Your task to perform on an android device: install app "Walmart Shopping & Grocery" Image 0: 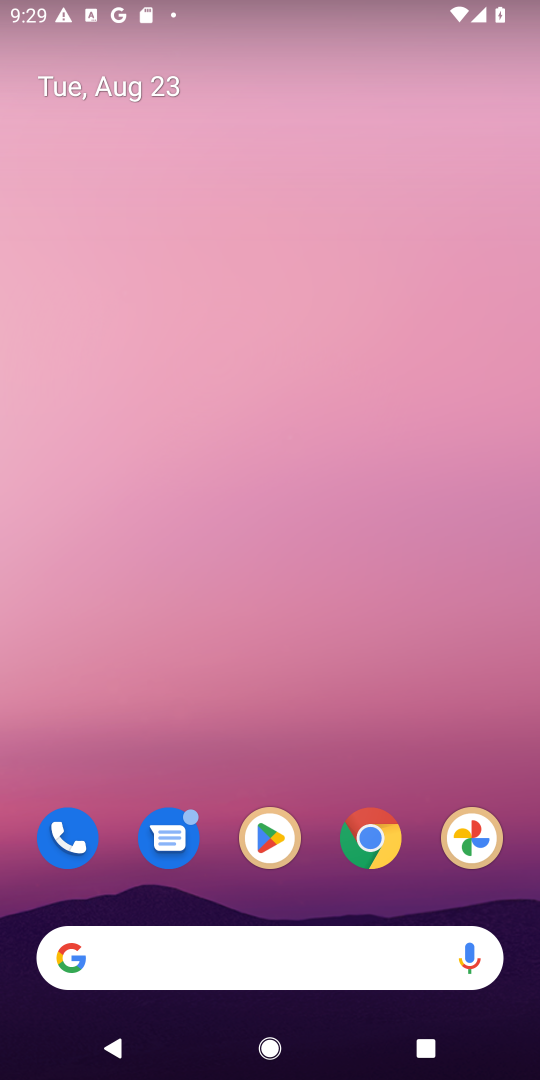
Step 0: click (285, 839)
Your task to perform on an android device: install app "Walmart Shopping & Grocery" Image 1: 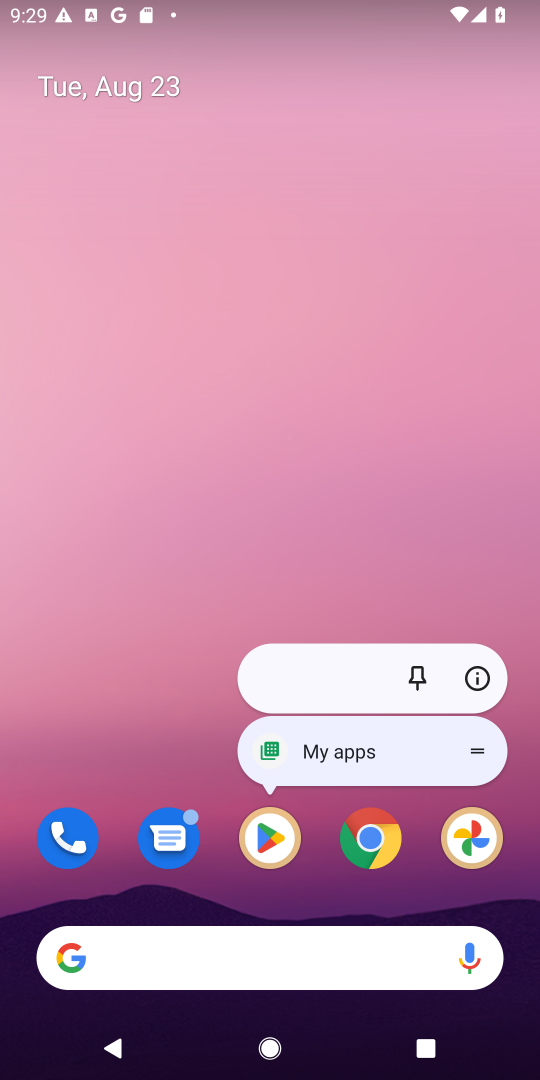
Step 1: click (260, 822)
Your task to perform on an android device: install app "Walmart Shopping & Grocery" Image 2: 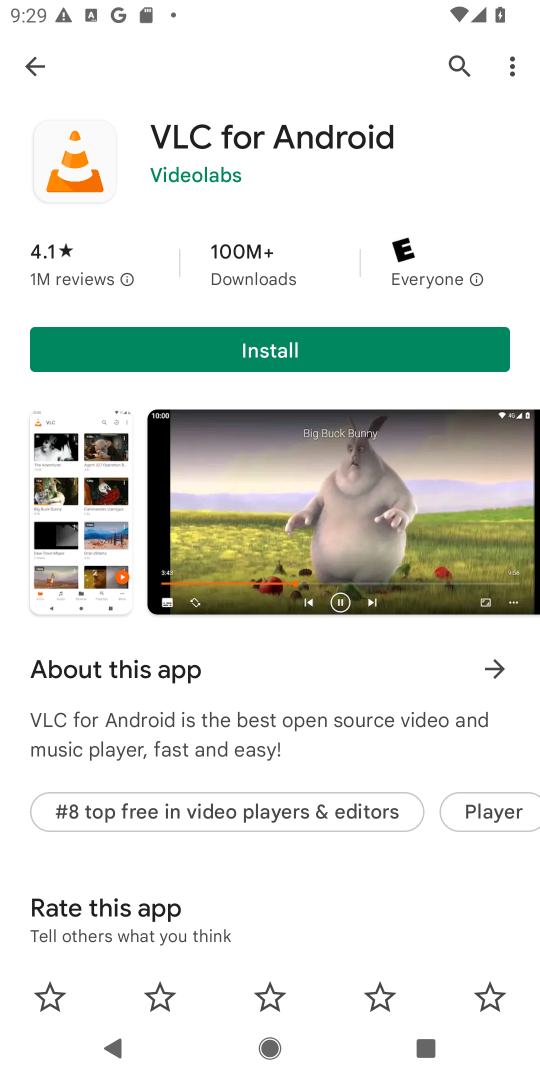
Step 2: click (445, 61)
Your task to perform on an android device: install app "Walmart Shopping & Grocery" Image 3: 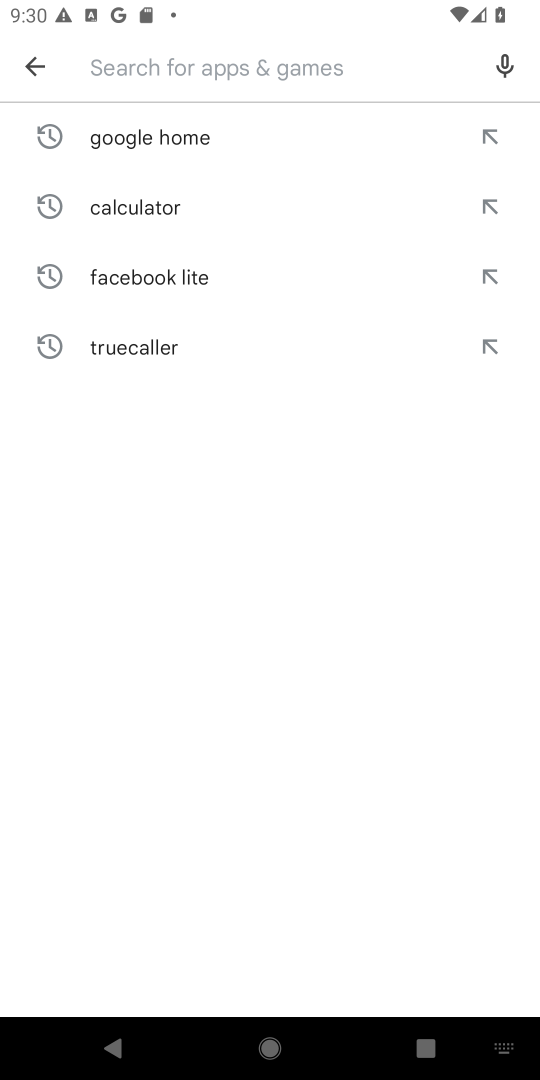
Step 3: type "Walmart Shopping & Grocery"
Your task to perform on an android device: install app "Walmart Shopping & Grocery" Image 4: 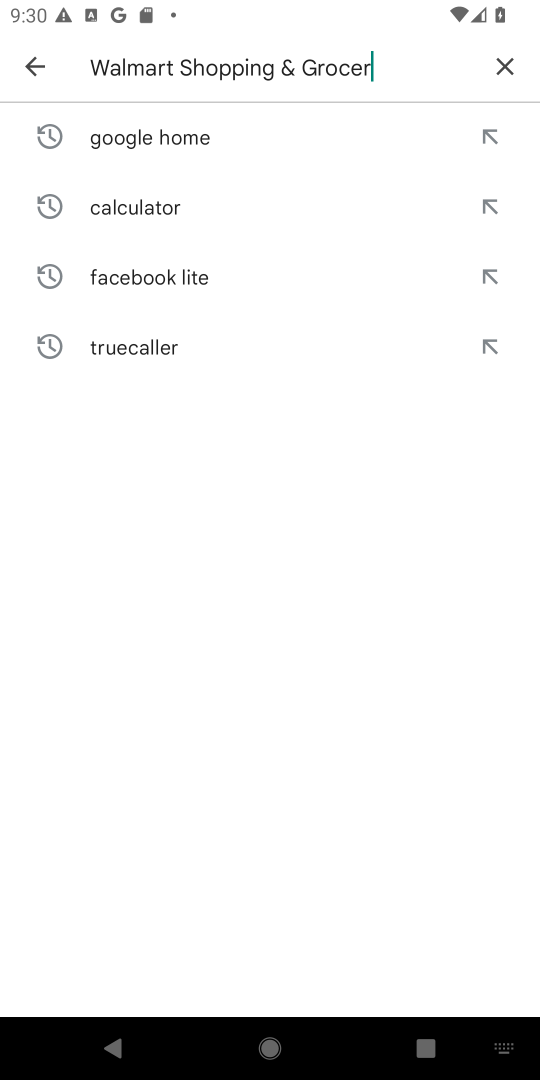
Step 4: type ""
Your task to perform on an android device: install app "Walmart Shopping & Grocery" Image 5: 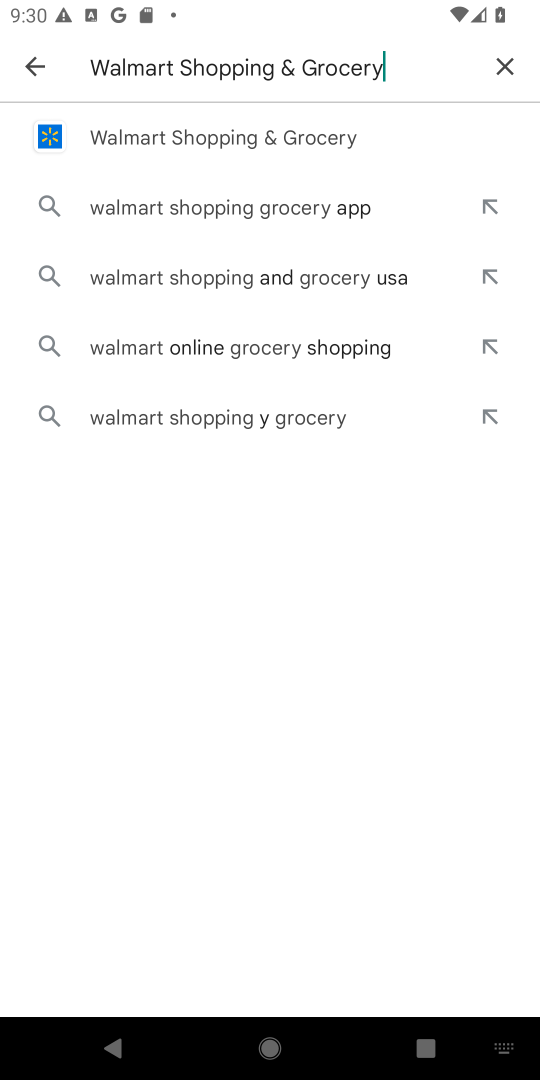
Step 5: click (246, 130)
Your task to perform on an android device: install app "Walmart Shopping & Grocery" Image 6: 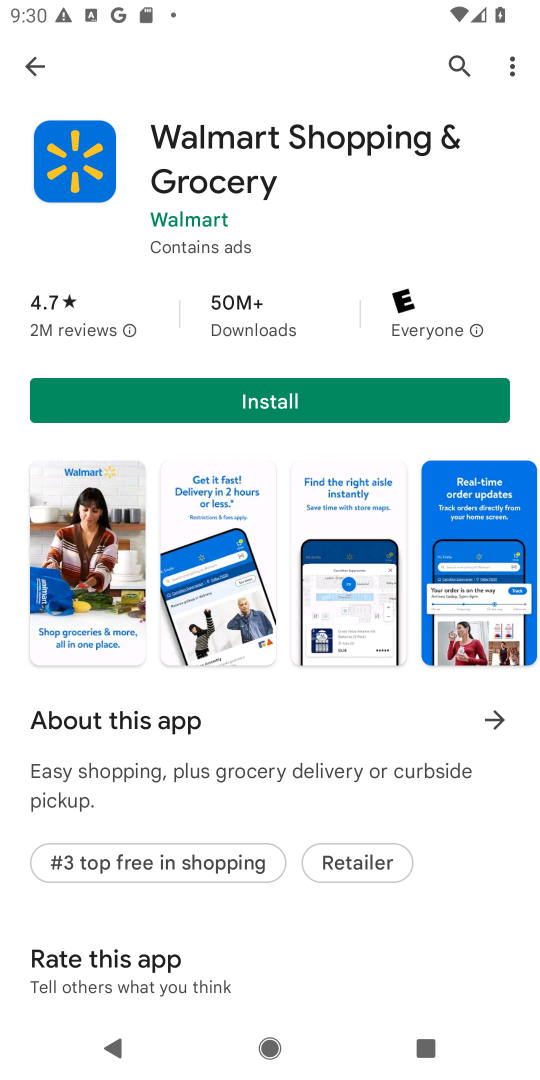
Step 6: click (266, 410)
Your task to perform on an android device: install app "Walmart Shopping & Grocery" Image 7: 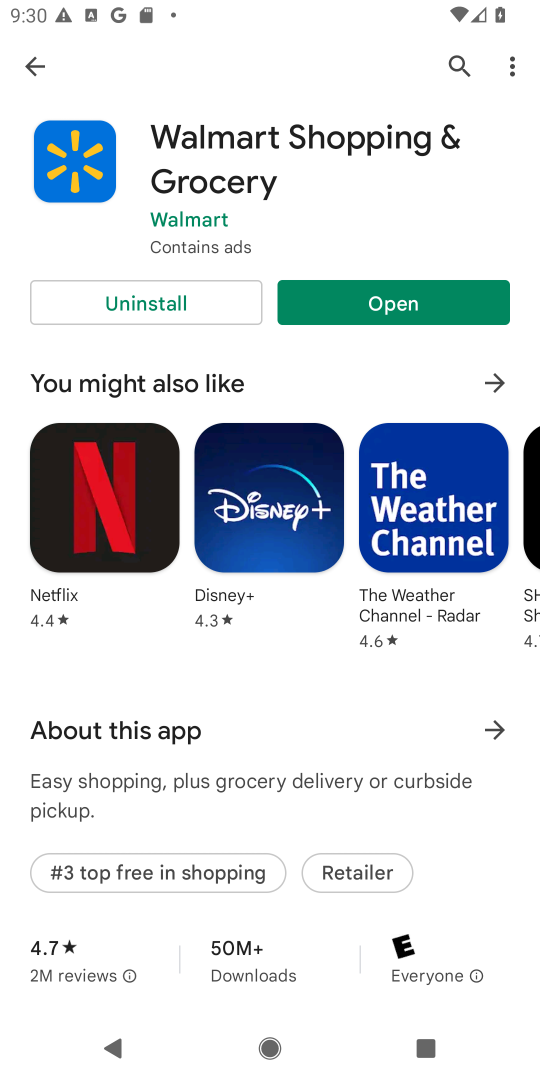
Step 7: task complete